Your task to perform on an android device: turn on translation in the chrome app Image 0: 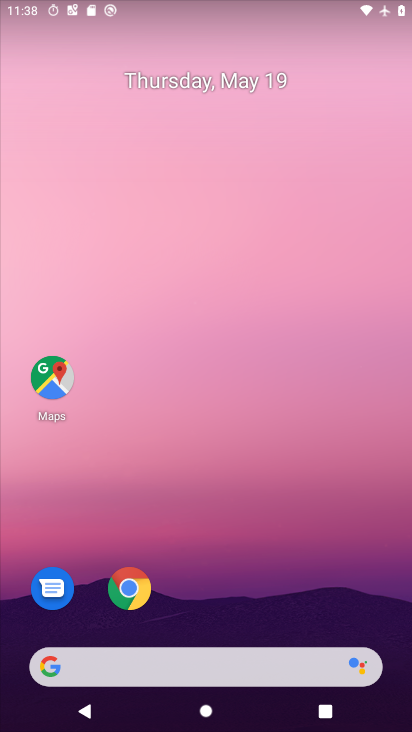
Step 0: click (133, 596)
Your task to perform on an android device: turn on translation in the chrome app Image 1: 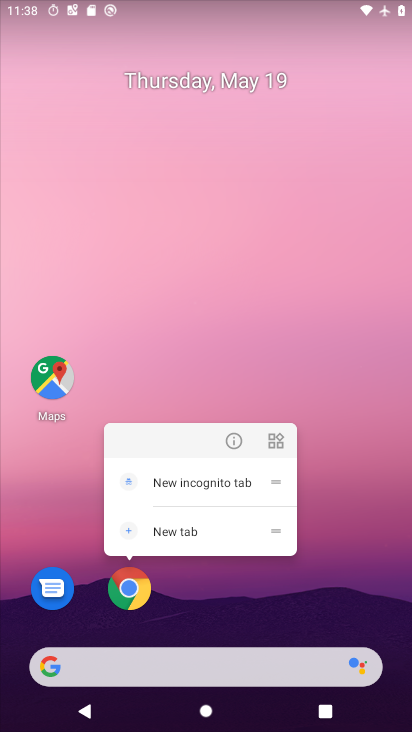
Step 1: click (133, 596)
Your task to perform on an android device: turn on translation in the chrome app Image 2: 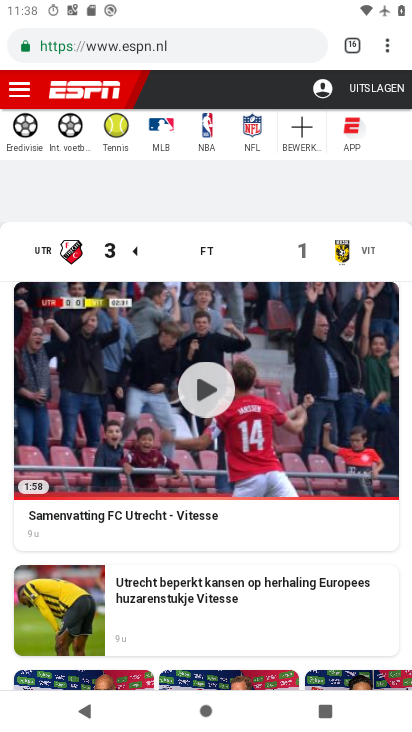
Step 2: drag from (386, 47) to (250, 547)
Your task to perform on an android device: turn on translation in the chrome app Image 3: 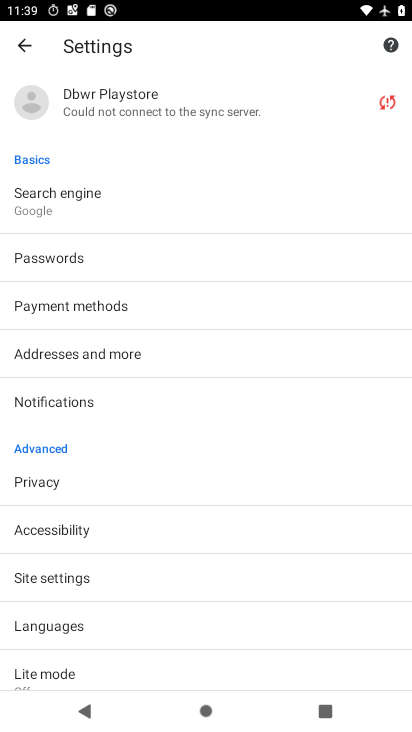
Step 3: click (87, 627)
Your task to perform on an android device: turn on translation in the chrome app Image 4: 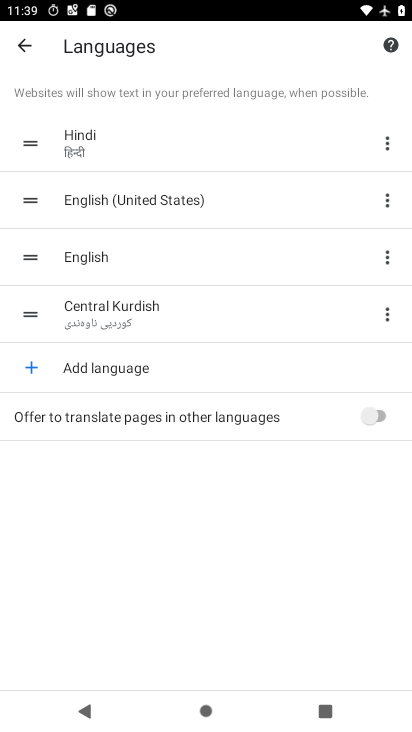
Step 4: click (380, 414)
Your task to perform on an android device: turn on translation in the chrome app Image 5: 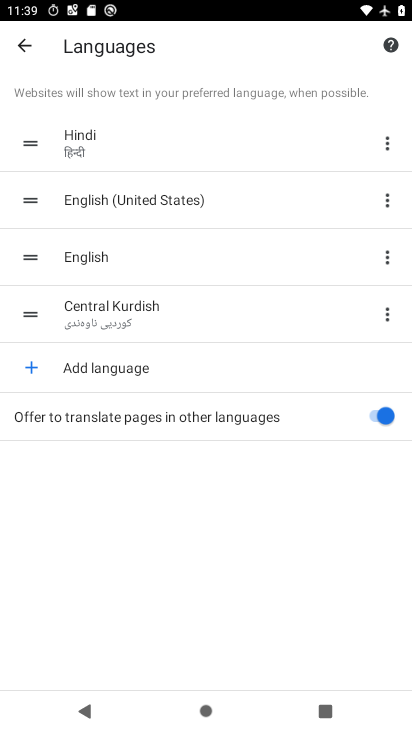
Step 5: task complete